Your task to perform on an android device: Go to internet settings Image 0: 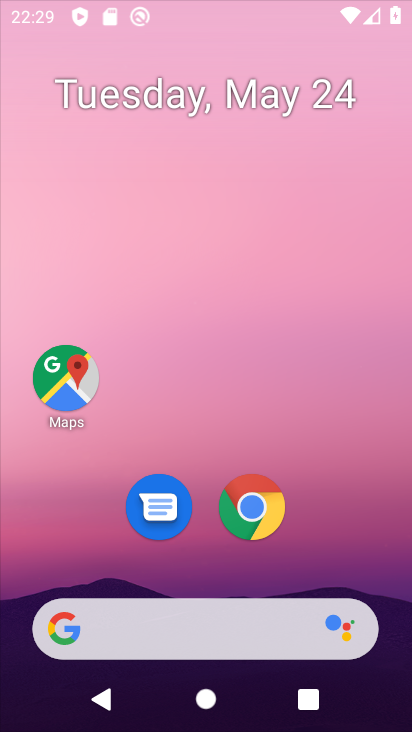
Step 0: drag from (238, 653) to (238, 35)
Your task to perform on an android device: Go to internet settings Image 1: 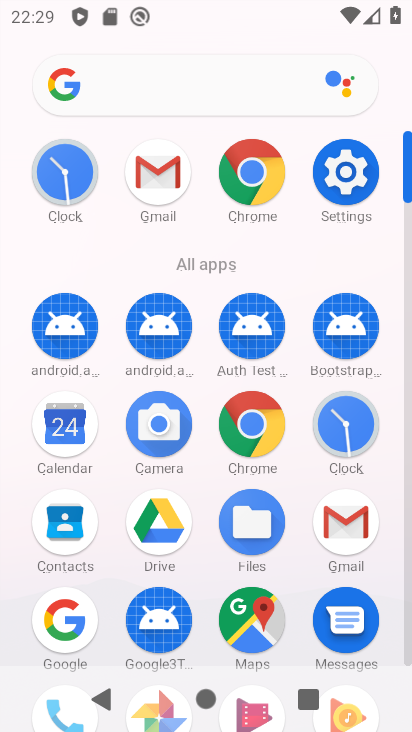
Step 1: click (359, 168)
Your task to perform on an android device: Go to internet settings Image 2: 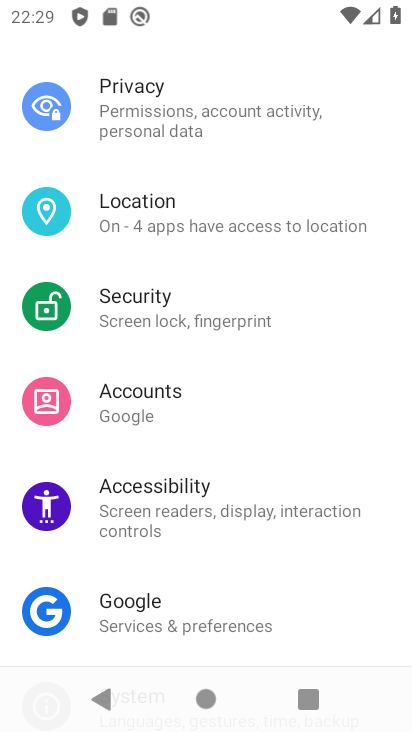
Step 2: drag from (208, 164) to (142, 647)
Your task to perform on an android device: Go to internet settings Image 3: 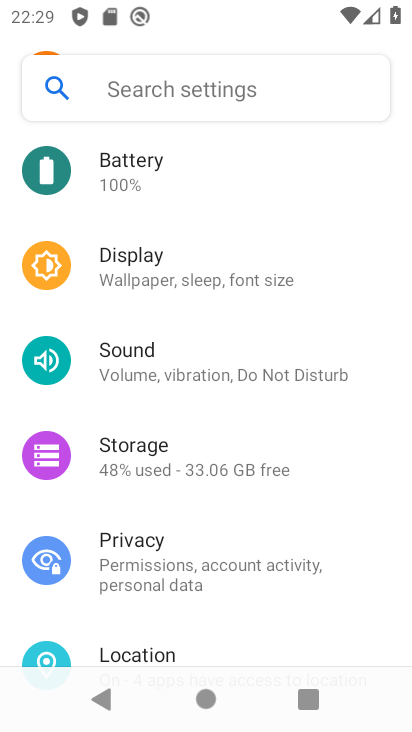
Step 3: drag from (151, 303) to (119, 597)
Your task to perform on an android device: Go to internet settings Image 4: 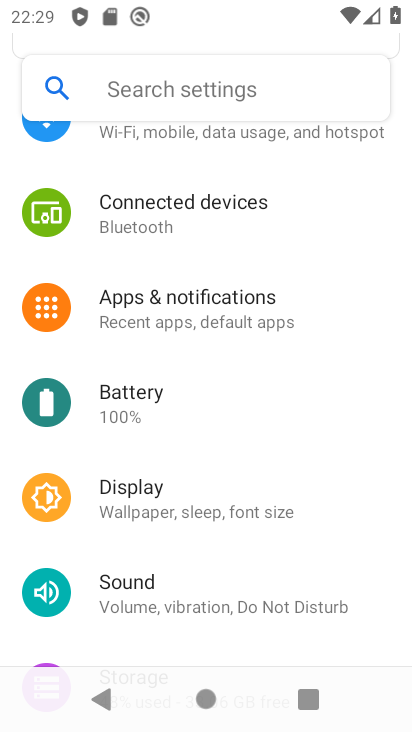
Step 4: drag from (212, 211) to (220, 520)
Your task to perform on an android device: Go to internet settings Image 5: 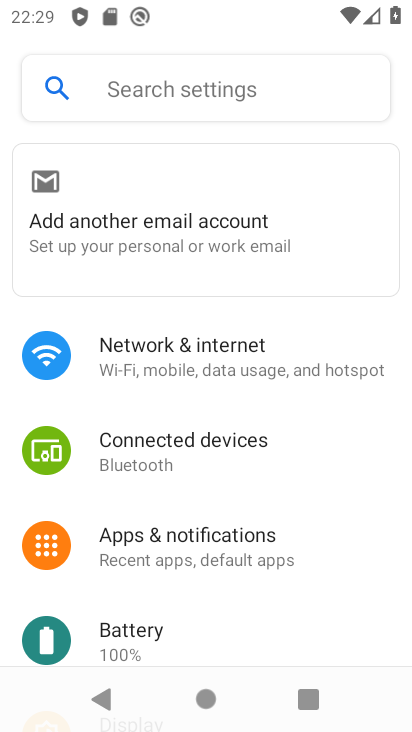
Step 5: click (193, 250)
Your task to perform on an android device: Go to internet settings Image 6: 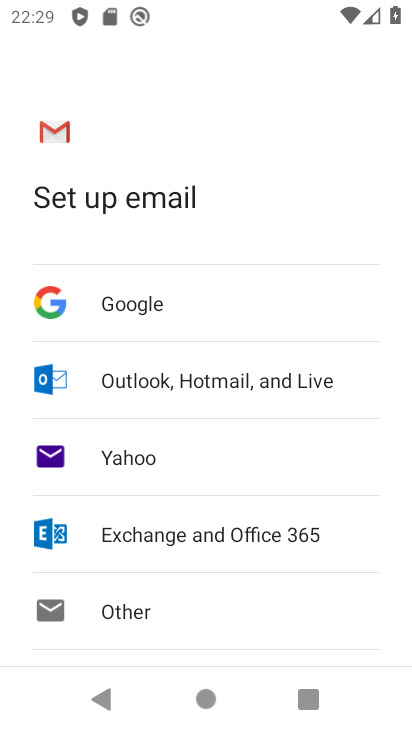
Step 6: task complete